Your task to perform on an android device: What's a good restaurant in Chicago? Image 0: 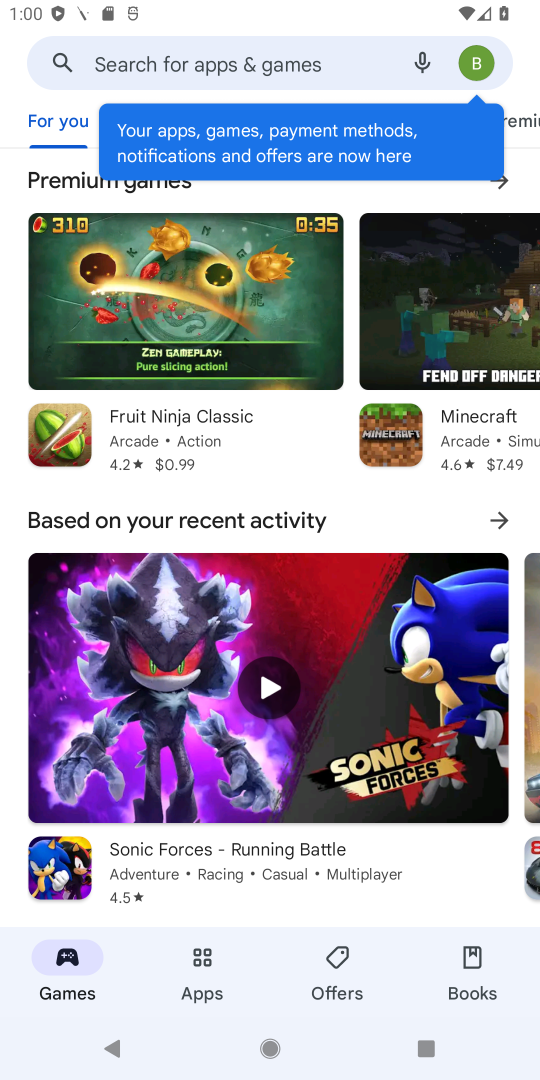
Step 0: press home button
Your task to perform on an android device: What's a good restaurant in Chicago? Image 1: 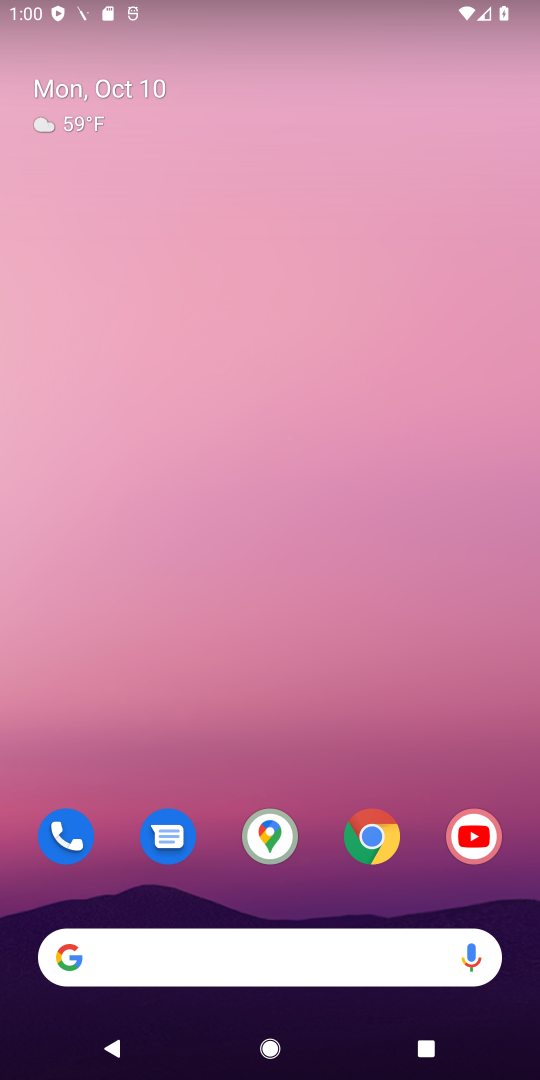
Step 1: click (355, 840)
Your task to perform on an android device: What's a good restaurant in Chicago? Image 2: 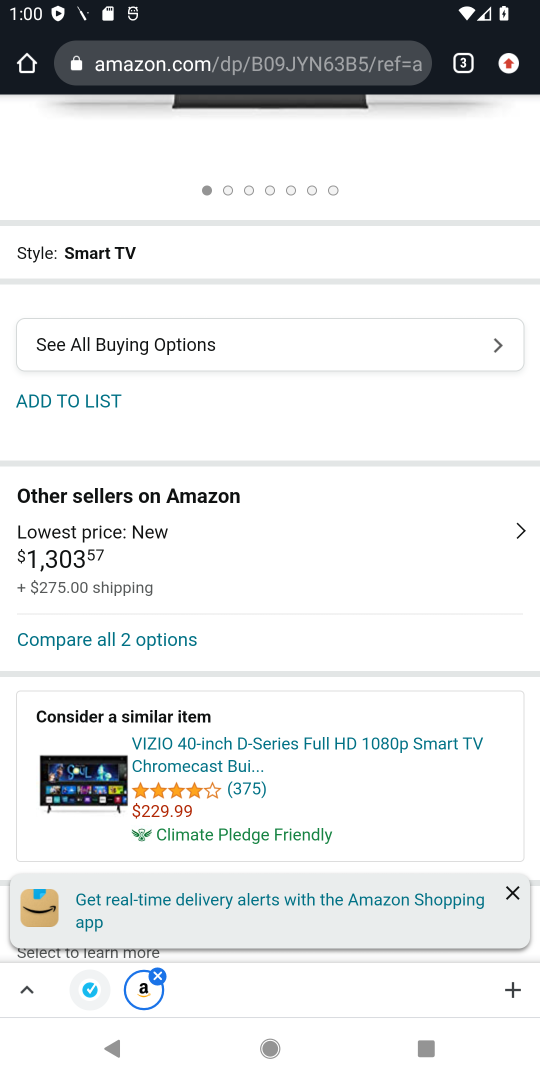
Step 2: click (279, 62)
Your task to perform on an android device: What's a good restaurant in Chicago? Image 3: 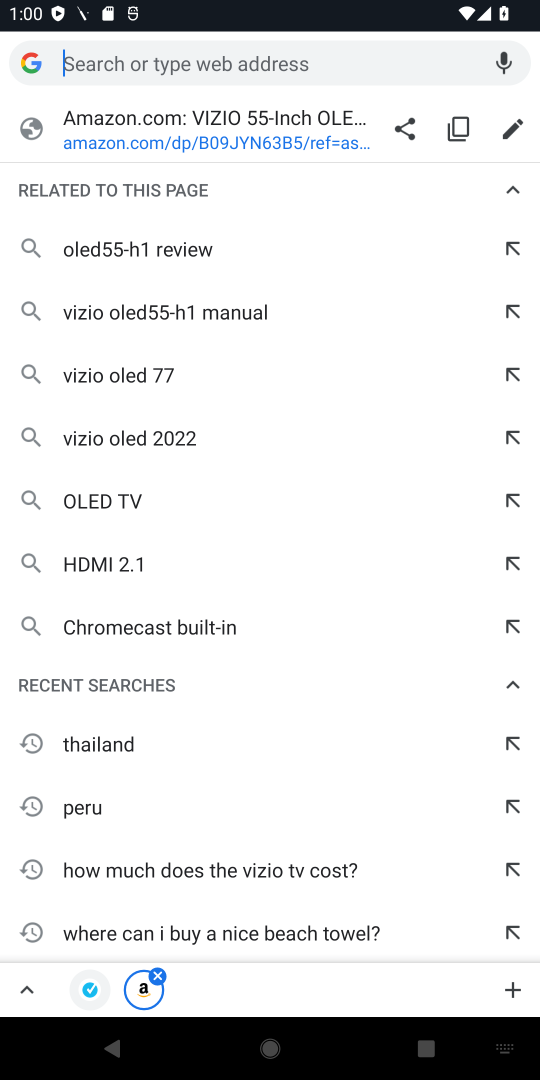
Step 3: type "good restaurant in Chicago"
Your task to perform on an android device: What's a good restaurant in Chicago? Image 4: 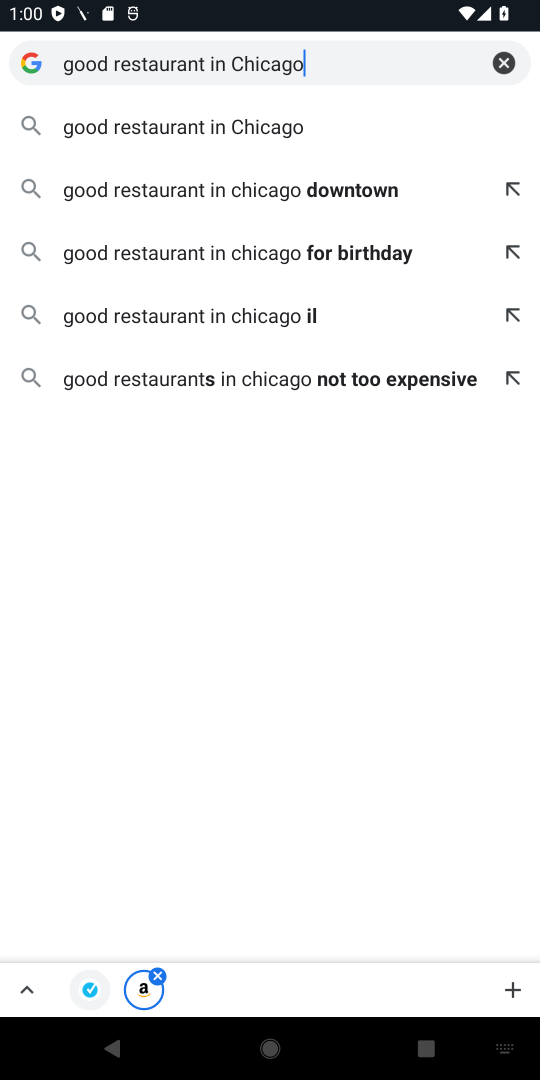
Step 4: click (124, 125)
Your task to perform on an android device: What's a good restaurant in Chicago? Image 5: 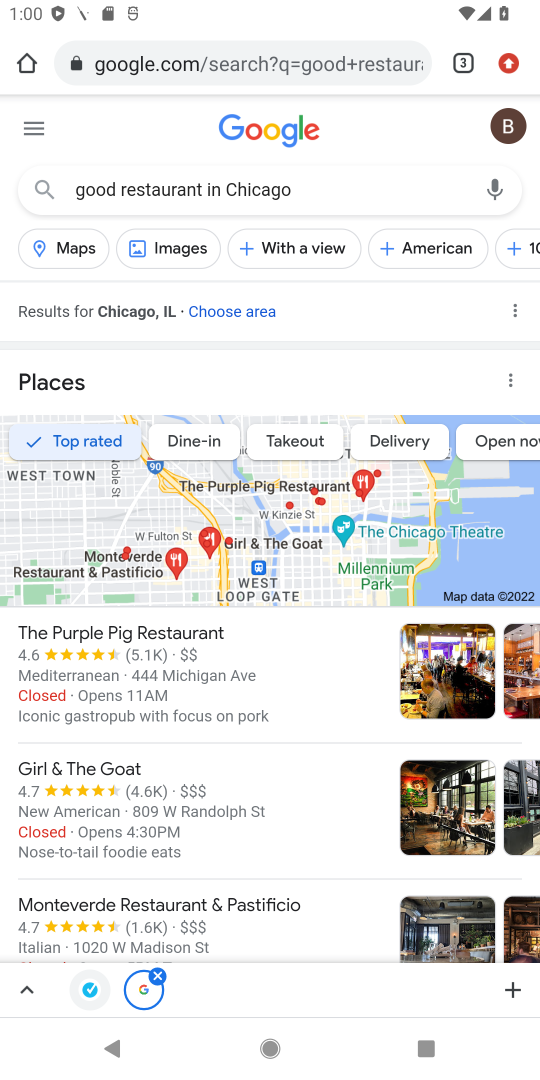
Step 5: task complete